Your task to perform on an android device: open the mobile data screen to see how much data has been used Image 0: 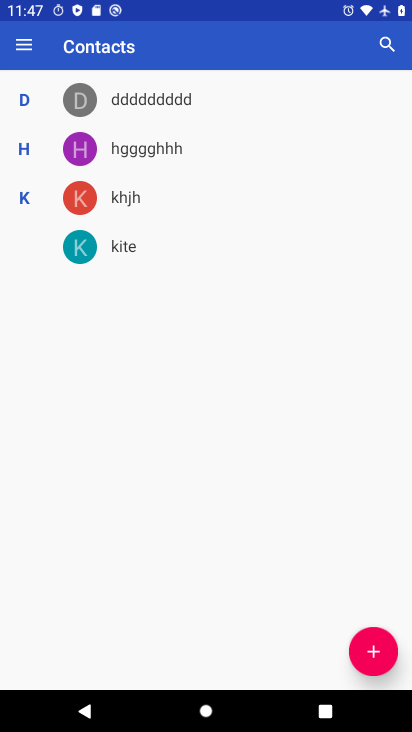
Step 0: press home button
Your task to perform on an android device: open the mobile data screen to see how much data has been used Image 1: 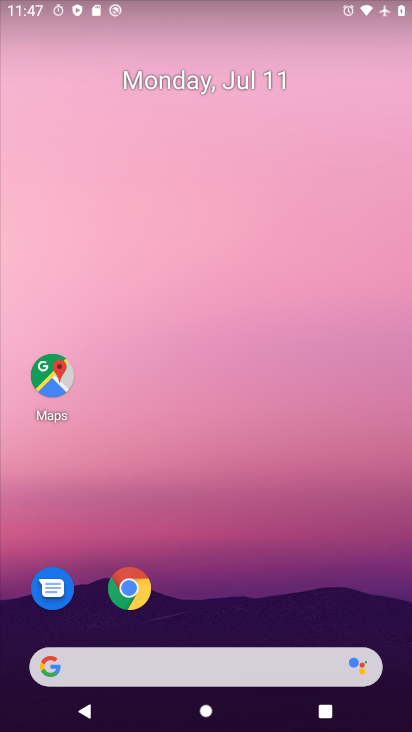
Step 1: drag from (165, 678) to (354, 1)
Your task to perform on an android device: open the mobile data screen to see how much data has been used Image 2: 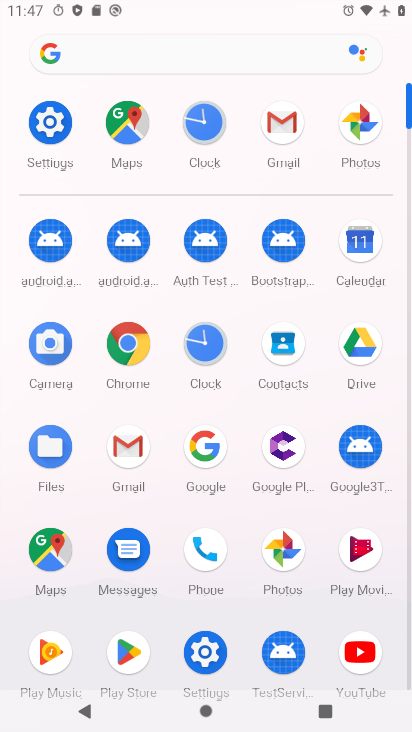
Step 2: click (58, 127)
Your task to perform on an android device: open the mobile data screen to see how much data has been used Image 3: 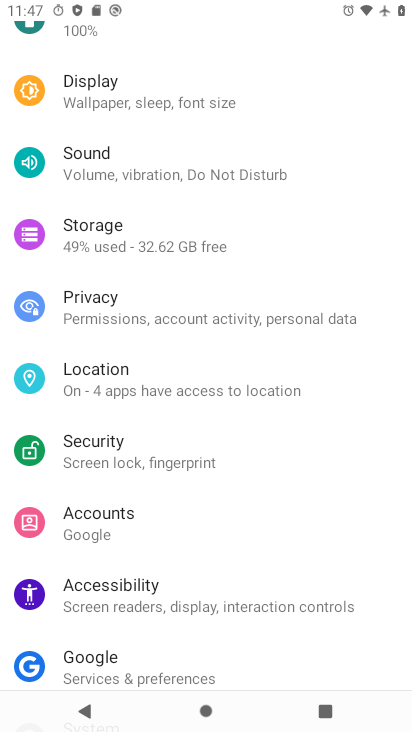
Step 3: drag from (285, 94) to (217, 493)
Your task to perform on an android device: open the mobile data screen to see how much data has been used Image 4: 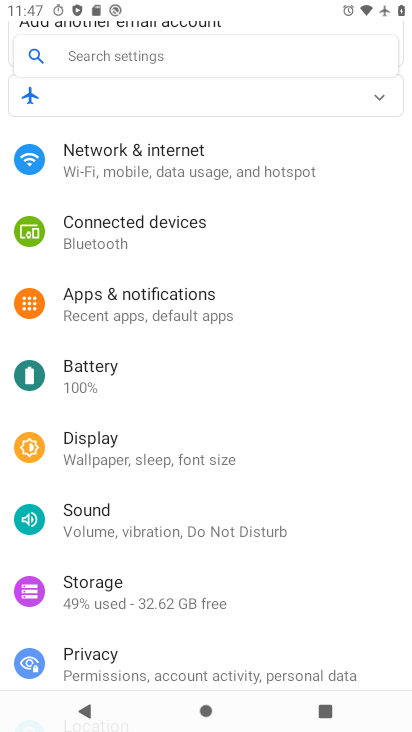
Step 4: click (197, 152)
Your task to perform on an android device: open the mobile data screen to see how much data has been used Image 5: 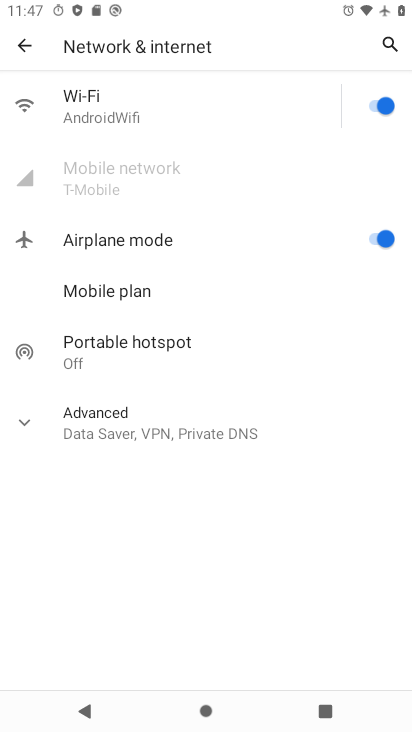
Step 5: task complete